Your task to perform on an android device: Open Google Chrome and open the bookmarks view Image 0: 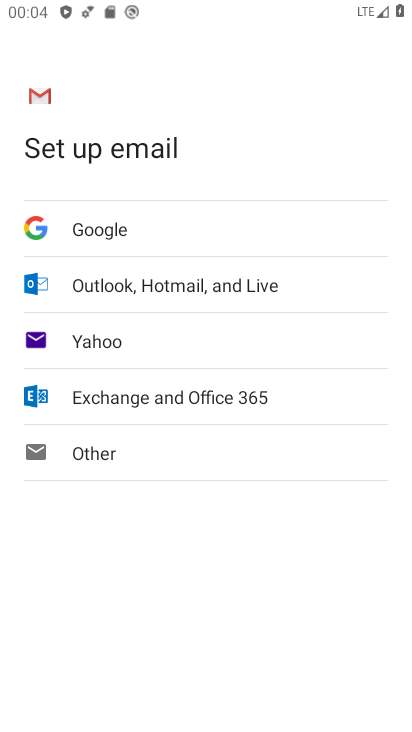
Step 0: press back button
Your task to perform on an android device: Open Google Chrome and open the bookmarks view Image 1: 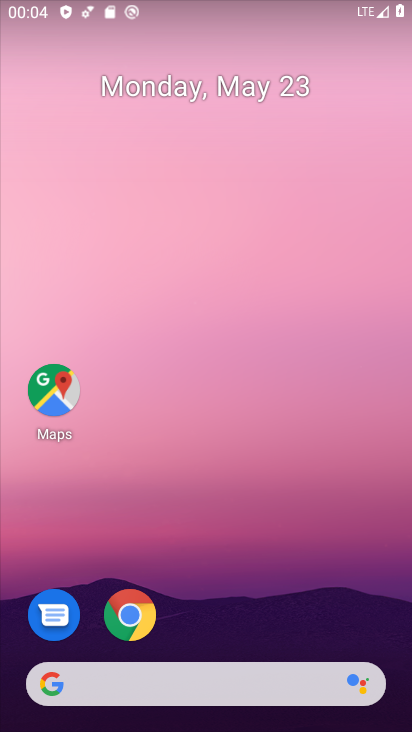
Step 1: click (138, 610)
Your task to perform on an android device: Open Google Chrome and open the bookmarks view Image 2: 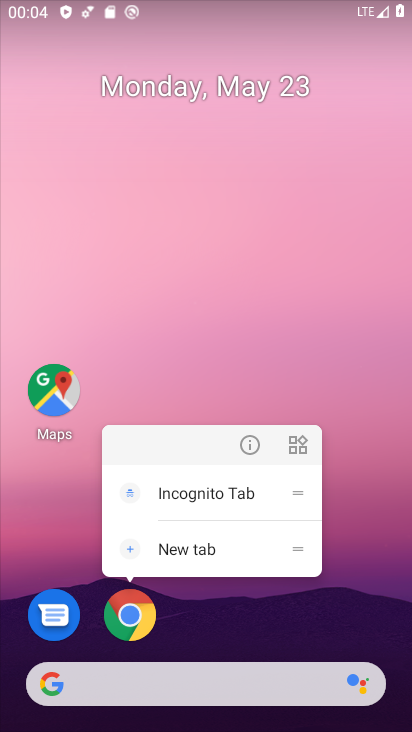
Step 2: click (131, 606)
Your task to perform on an android device: Open Google Chrome and open the bookmarks view Image 3: 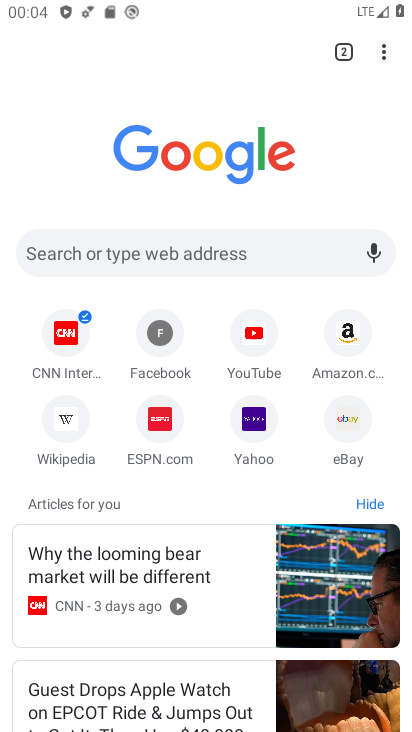
Step 3: task complete